Your task to perform on an android device: check the backup settings in the google photos Image 0: 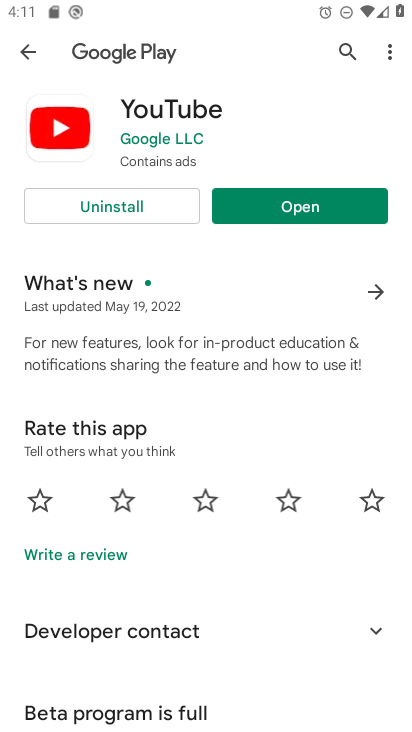
Step 0: press home button
Your task to perform on an android device: check the backup settings in the google photos Image 1: 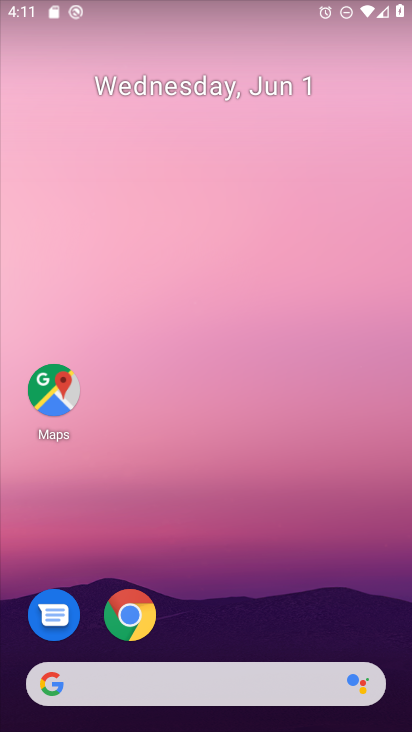
Step 1: drag from (224, 637) to (256, 41)
Your task to perform on an android device: check the backup settings in the google photos Image 2: 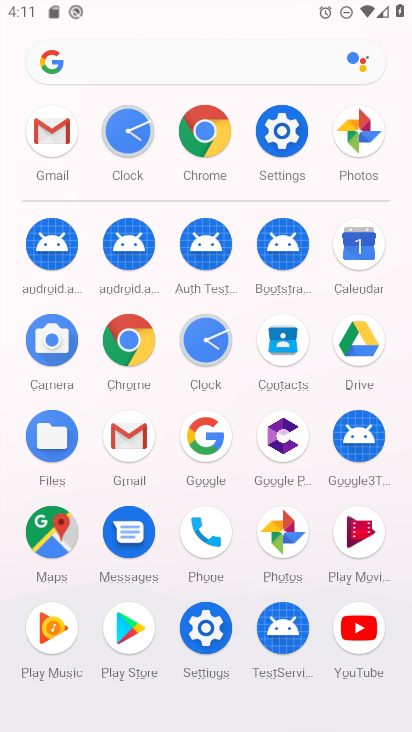
Step 2: click (281, 522)
Your task to perform on an android device: check the backup settings in the google photos Image 3: 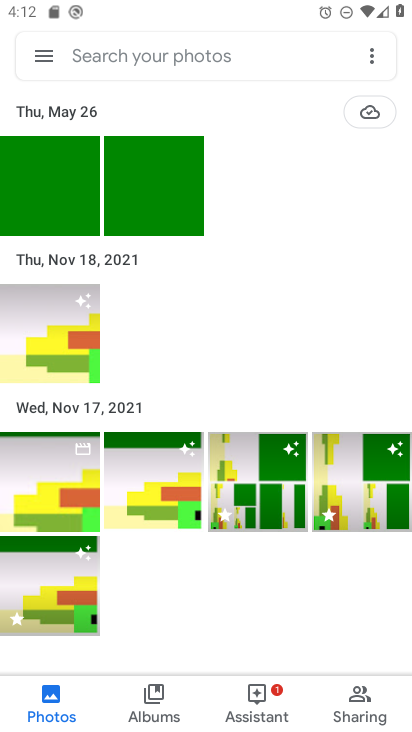
Step 3: click (45, 55)
Your task to perform on an android device: check the backup settings in the google photos Image 4: 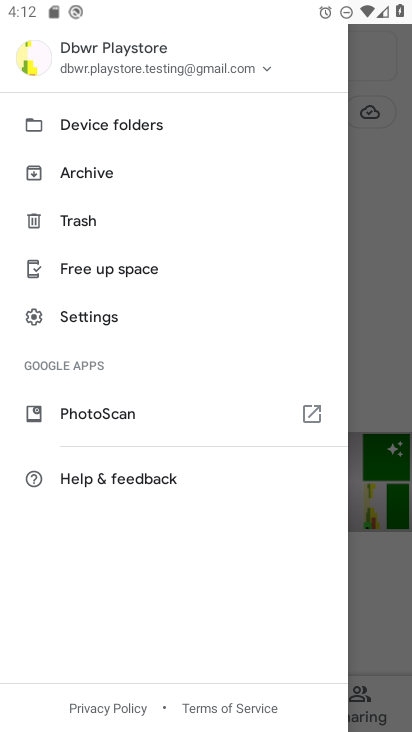
Step 4: click (120, 312)
Your task to perform on an android device: check the backup settings in the google photos Image 5: 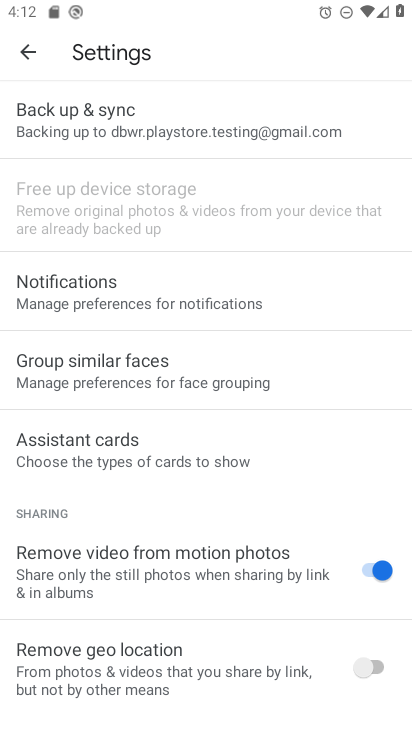
Step 5: click (92, 115)
Your task to perform on an android device: check the backup settings in the google photos Image 6: 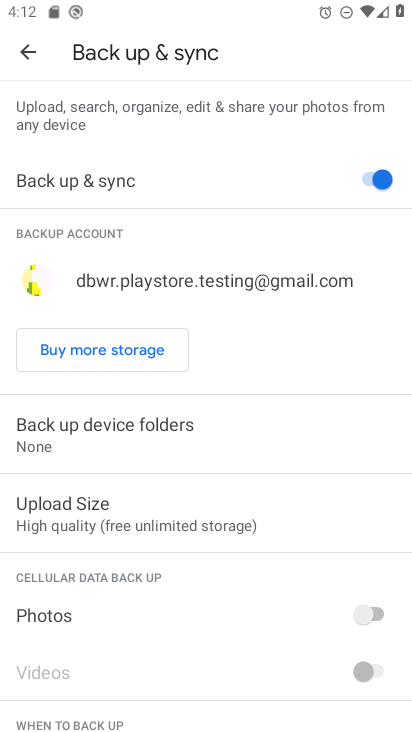
Step 6: task complete